Your task to perform on an android device: Show me the alarms in the clock app Image 0: 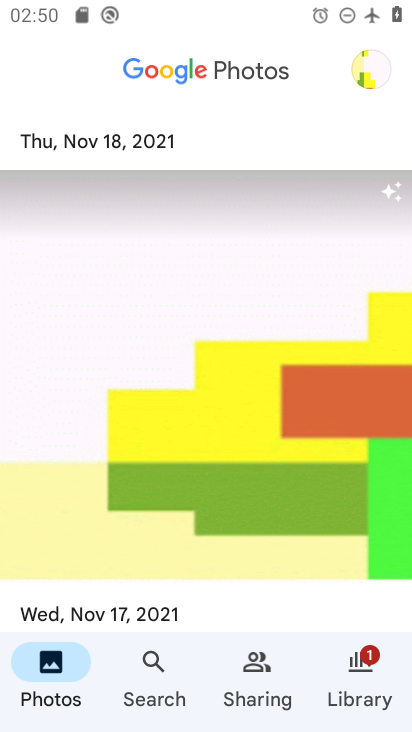
Step 0: press home button
Your task to perform on an android device: Show me the alarms in the clock app Image 1: 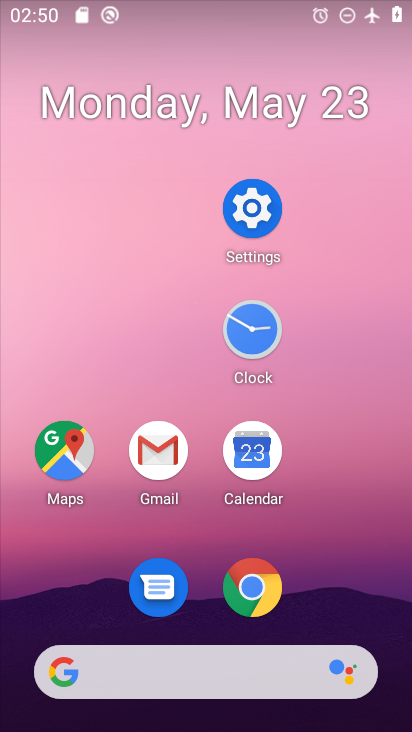
Step 1: click (253, 343)
Your task to perform on an android device: Show me the alarms in the clock app Image 2: 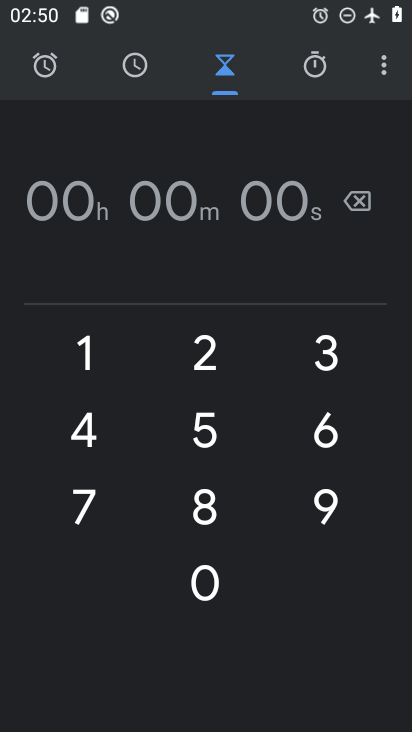
Step 2: click (24, 63)
Your task to perform on an android device: Show me the alarms in the clock app Image 3: 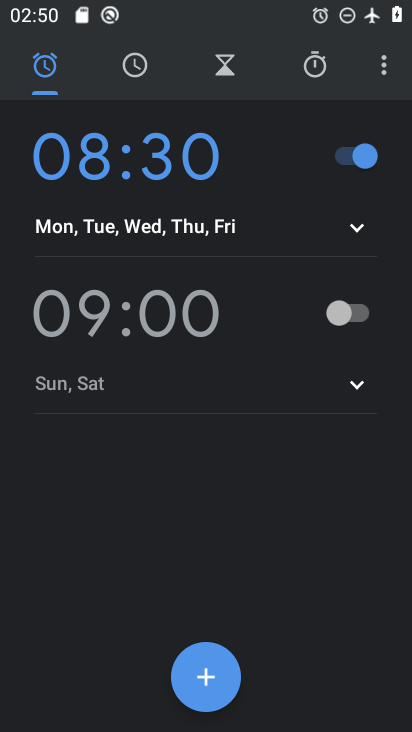
Step 3: task complete